Your task to perform on an android device: Go to Amazon Image 0: 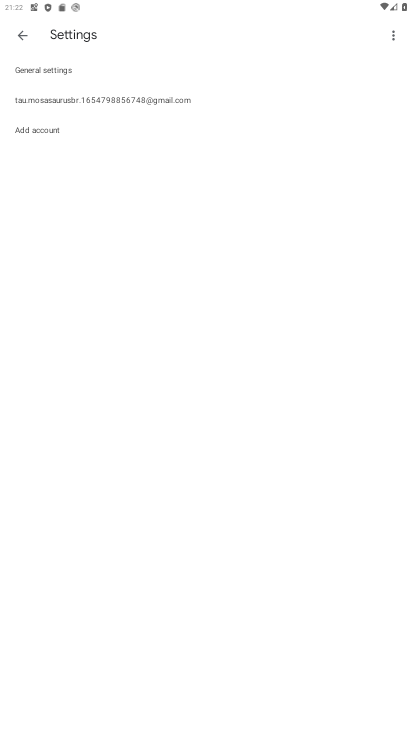
Step 0: press home button
Your task to perform on an android device: Go to Amazon Image 1: 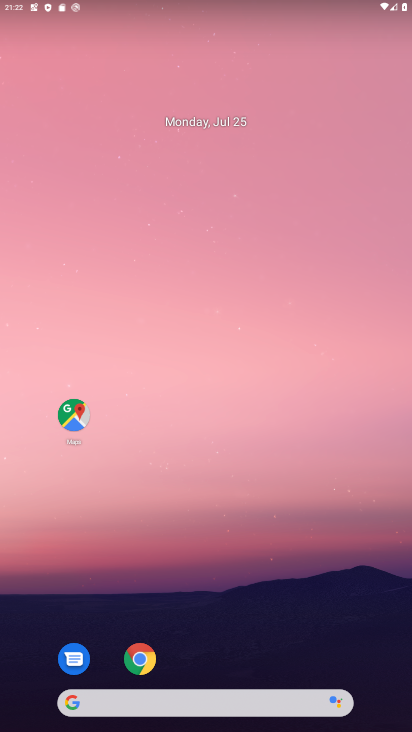
Step 1: click (156, 657)
Your task to perform on an android device: Go to Amazon Image 2: 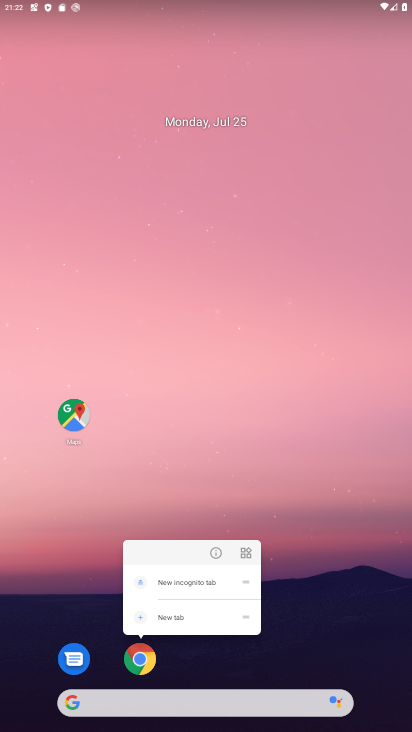
Step 2: click (124, 667)
Your task to perform on an android device: Go to Amazon Image 3: 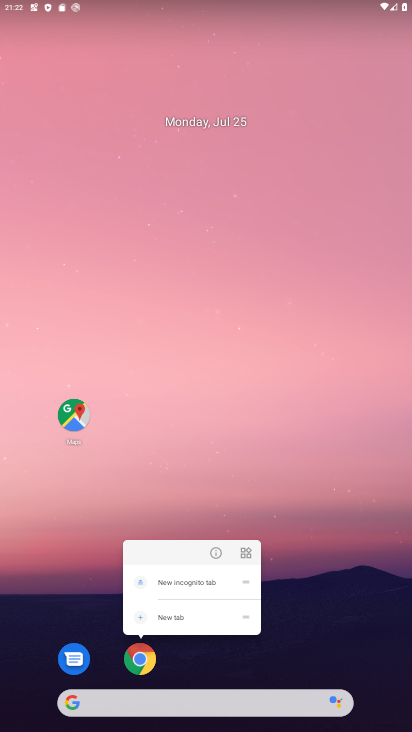
Step 3: click (126, 666)
Your task to perform on an android device: Go to Amazon Image 4: 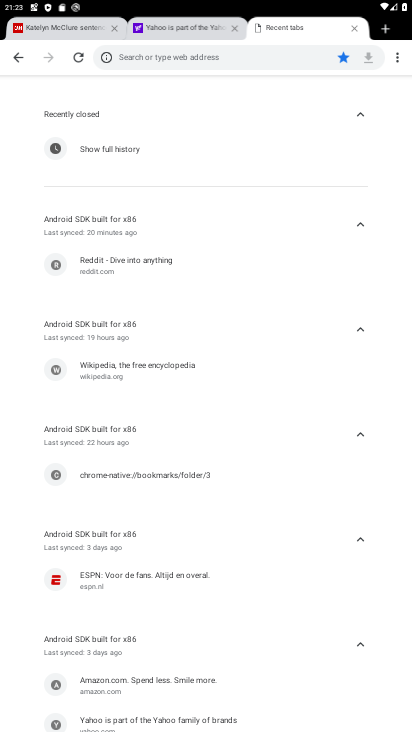
Step 4: click (387, 31)
Your task to perform on an android device: Go to Amazon Image 5: 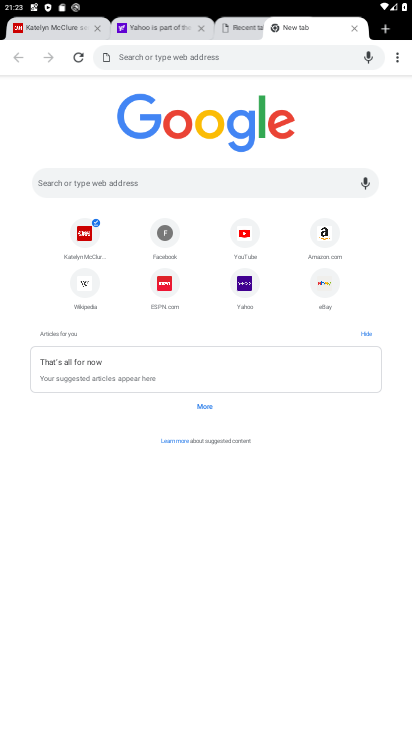
Step 5: click (314, 222)
Your task to perform on an android device: Go to Amazon Image 6: 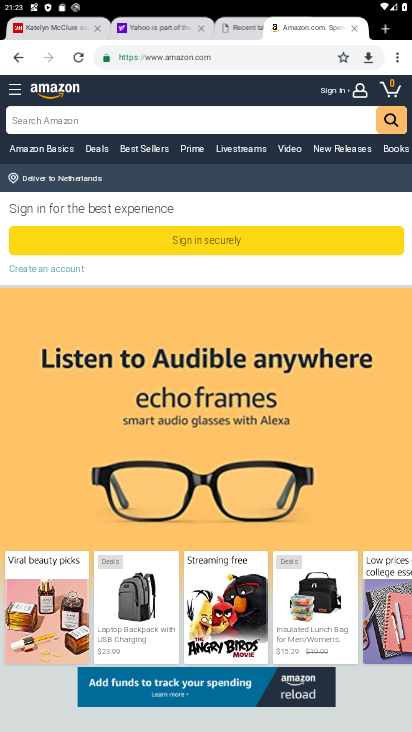
Step 6: task complete